Your task to perform on an android device: Open battery settings Image 0: 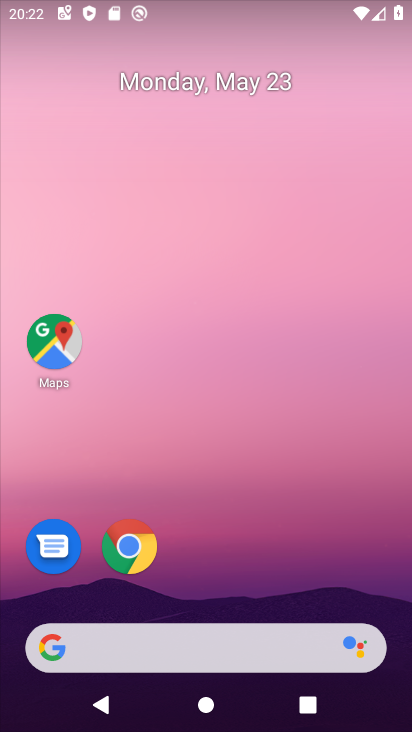
Step 0: drag from (386, 592) to (360, 290)
Your task to perform on an android device: Open battery settings Image 1: 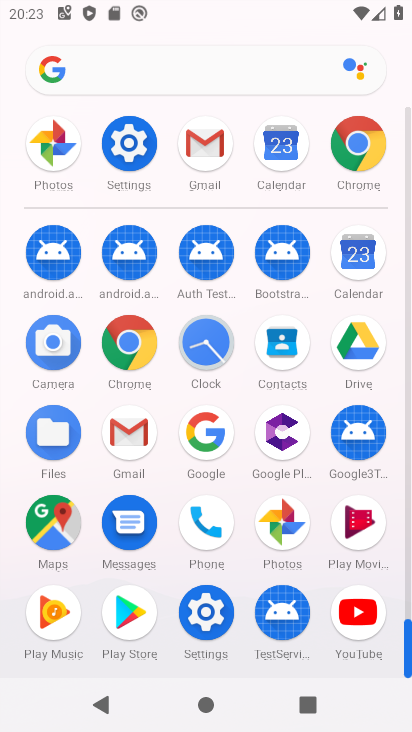
Step 1: click (213, 625)
Your task to perform on an android device: Open battery settings Image 2: 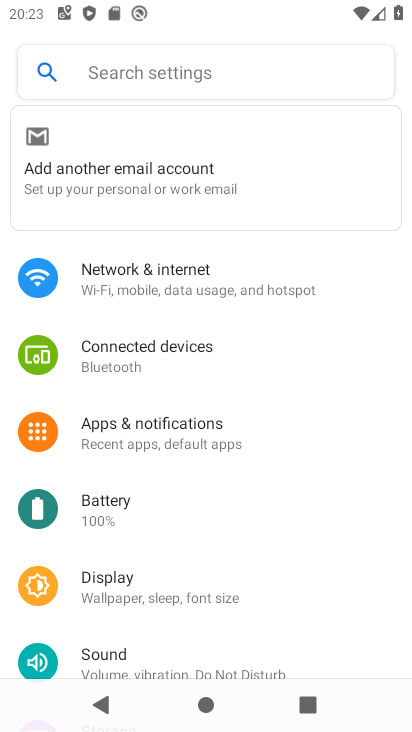
Step 2: drag from (368, 647) to (371, 549)
Your task to perform on an android device: Open battery settings Image 3: 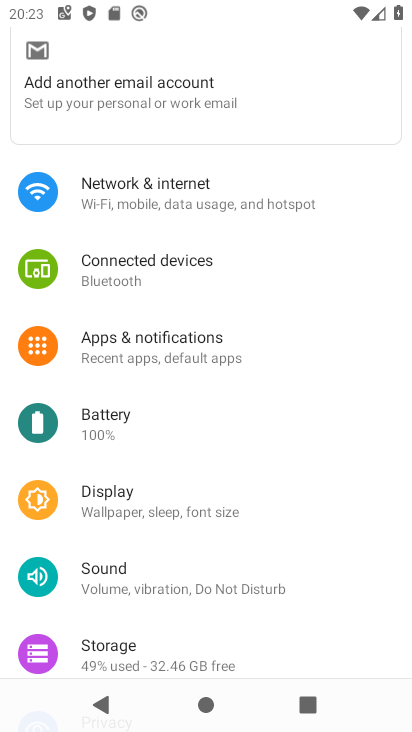
Step 3: drag from (368, 640) to (362, 506)
Your task to perform on an android device: Open battery settings Image 4: 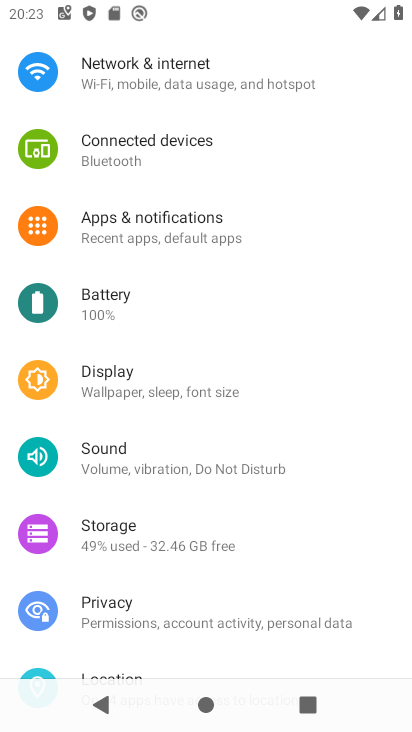
Step 4: drag from (363, 591) to (371, 506)
Your task to perform on an android device: Open battery settings Image 5: 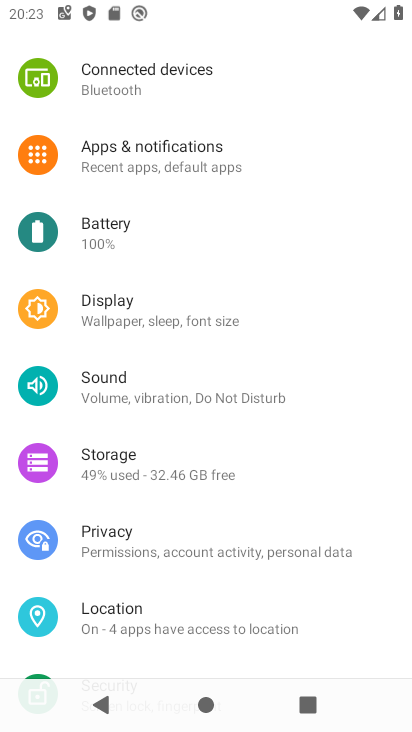
Step 5: drag from (377, 618) to (378, 537)
Your task to perform on an android device: Open battery settings Image 6: 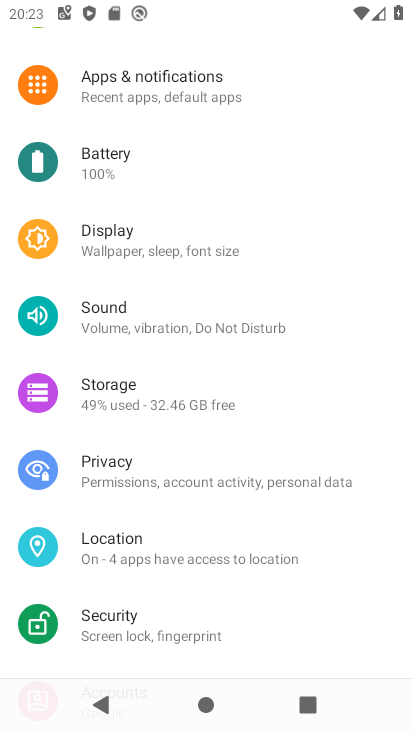
Step 6: drag from (357, 603) to (367, 530)
Your task to perform on an android device: Open battery settings Image 7: 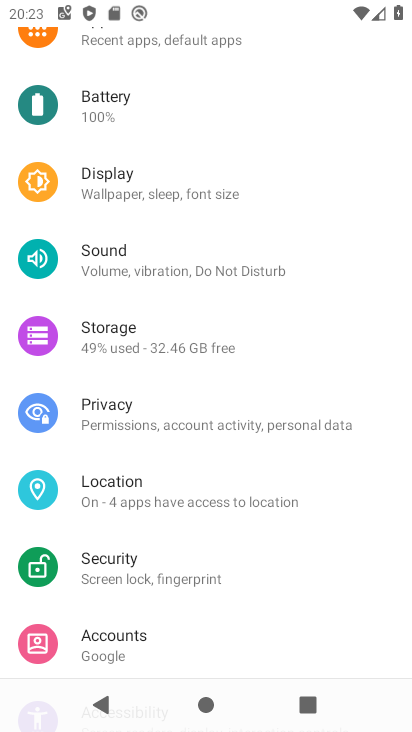
Step 7: drag from (363, 592) to (355, 508)
Your task to perform on an android device: Open battery settings Image 8: 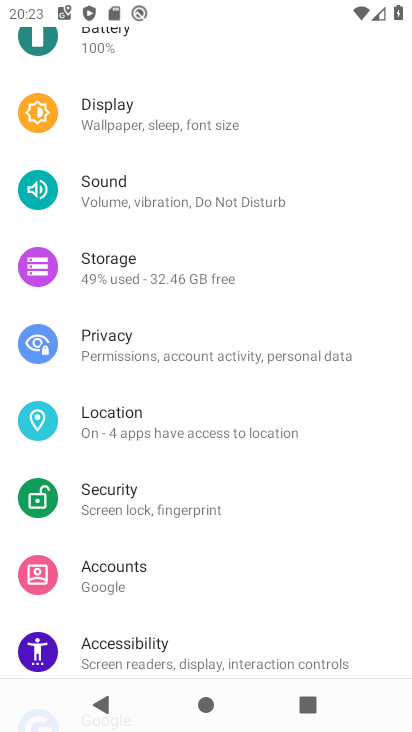
Step 8: drag from (355, 591) to (339, 514)
Your task to perform on an android device: Open battery settings Image 9: 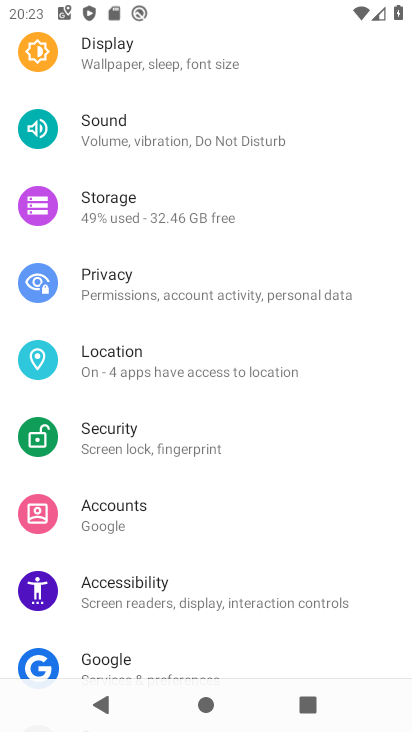
Step 9: drag from (357, 620) to (371, 526)
Your task to perform on an android device: Open battery settings Image 10: 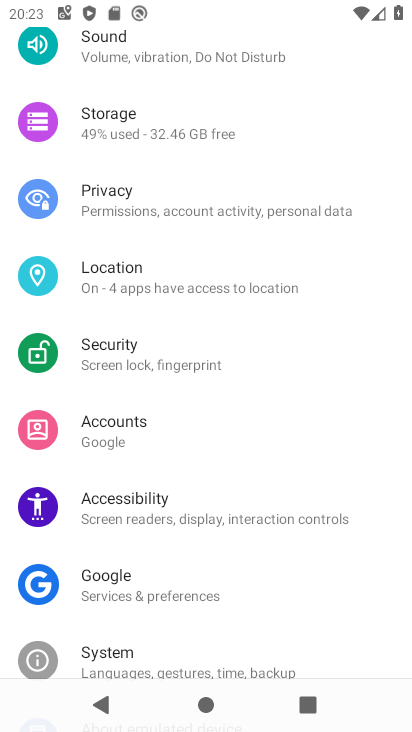
Step 10: drag from (369, 628) to (360, 537)
Your task to perform on an android device: Open battery settings Image 11: 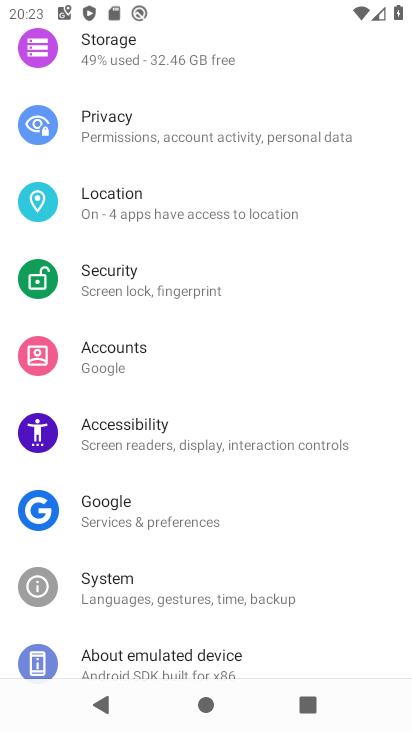
Step 11: drag from (371, 616) to (372, 514)
Your task to perform on an android device: Open battery settings Image 12: 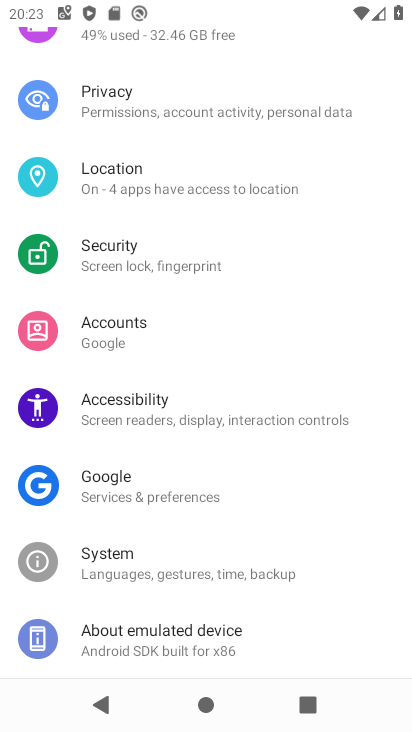
Step 12: drag from (369, 414) to (364, 490)
Your task to perform on an android device: Open battery settings Image 13: 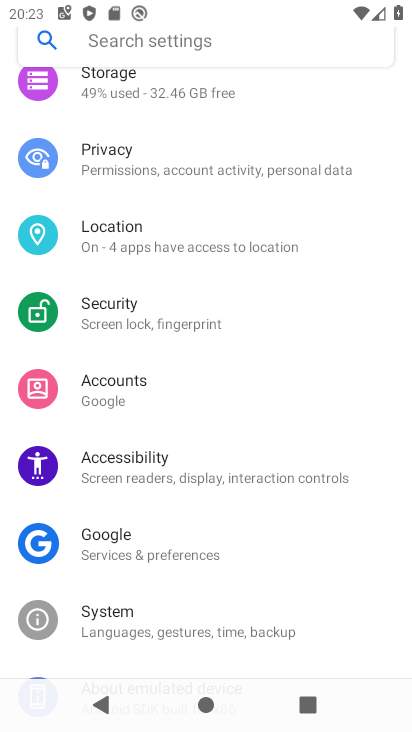
Step 13: drag from (364, 372) to (372, 465)
Your task to perform on an android device: Open battery settings Image 14: 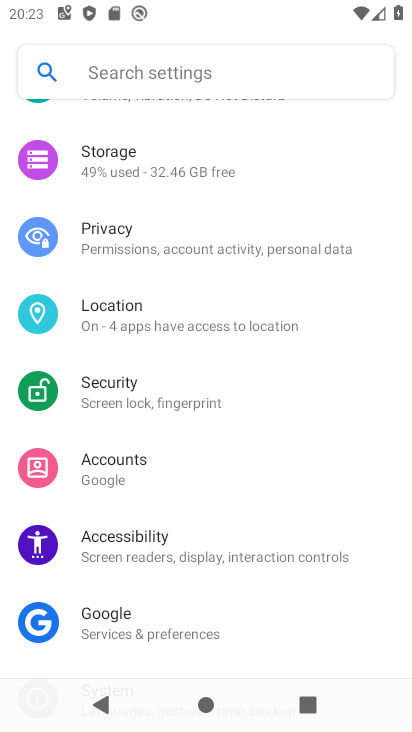
Step 14: drag from (373, 321) to (378, 427)
Your task to perform on an android device: Open battery settings Image 15: 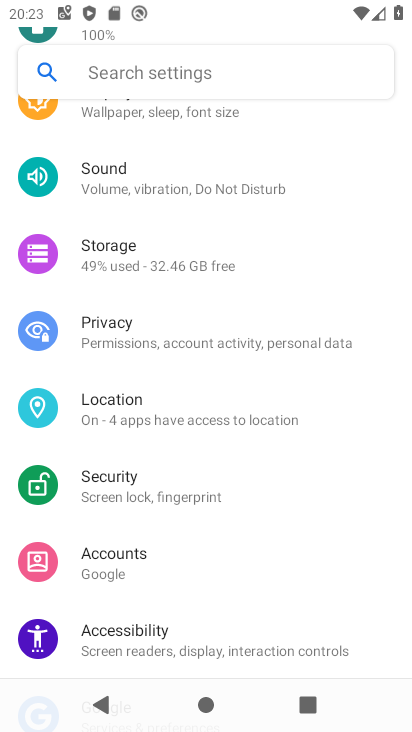
Step 15: drag from (376, 295) to (358, 409)
Your task to perform on an android device: Open battery settings Image 16: 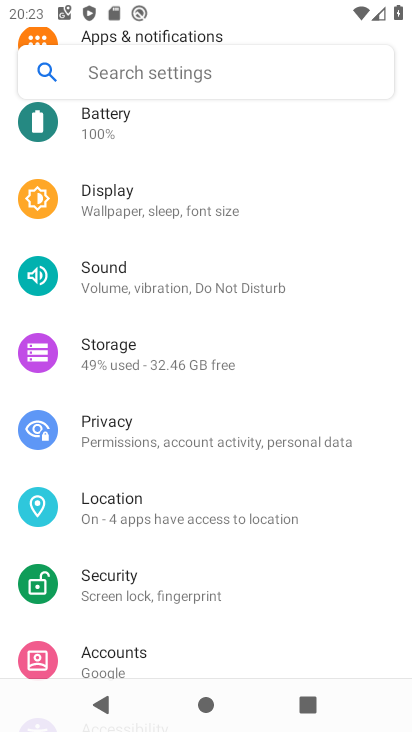
Step 16: drag from (355, 312) to (350, 403)
Your task to perform on an android device: Open battery settings Image 17: 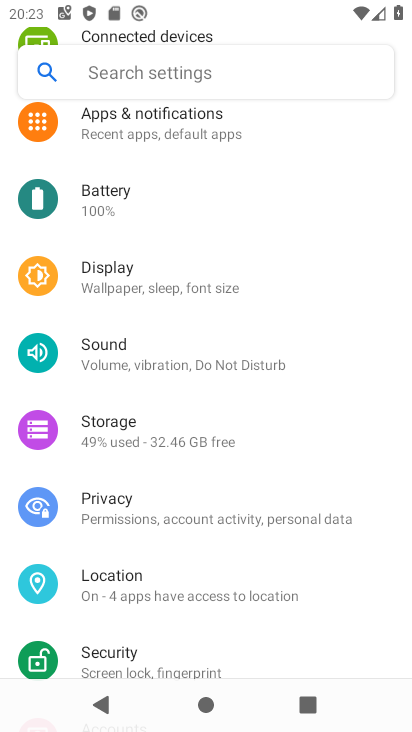
Step 17: drag from (340, 288) to (344, 392)
Your task to perform on an android device: Open battery settings Image 18: 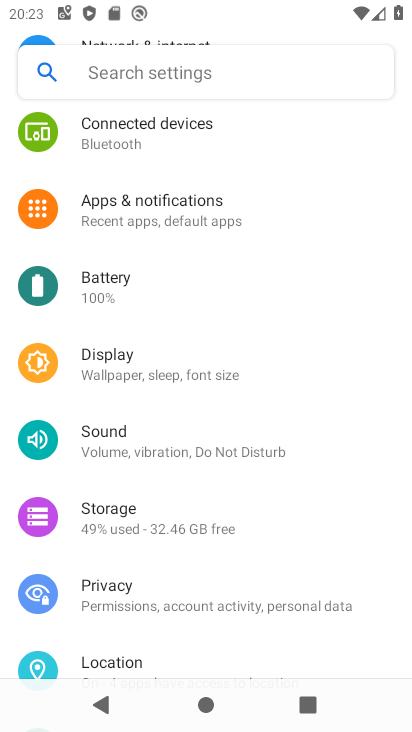
Step 18: drag from (363, 276) to (360, 400)
Your task to perform on an android device: Open battery settings Image 19: 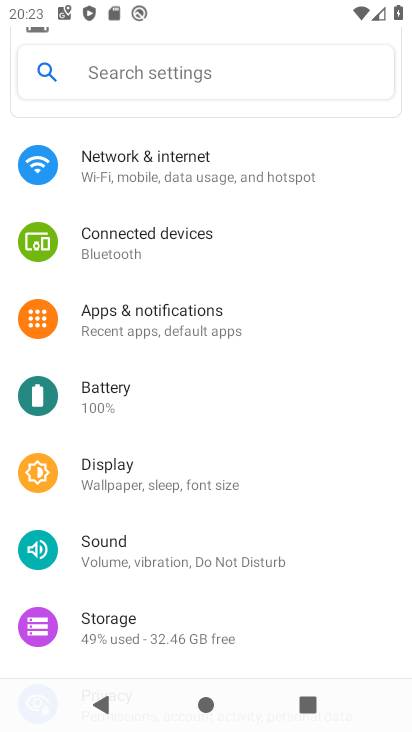
Step 19: click (186, 399)
Your task to perform on an android device: Open battery settings Image 20: 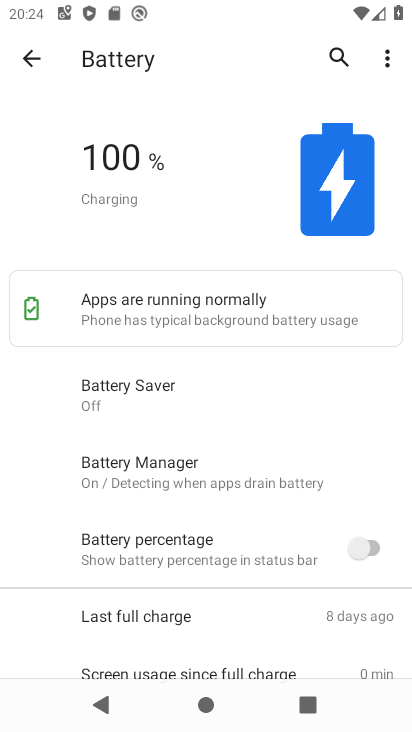
Step 20: task complete